Your task to perform on an android device: turn off javascript in the chrome app Image 0: 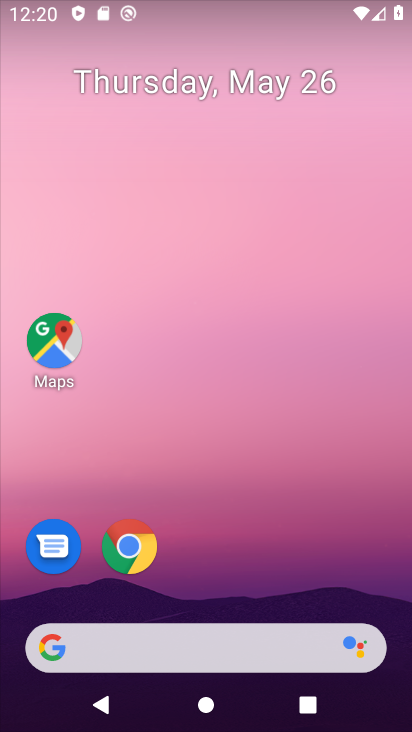
Step 0: drag from (390, 633) to (250, 30)
Your task to perform on an android device: turn off javascript in the chrome app Image 1: 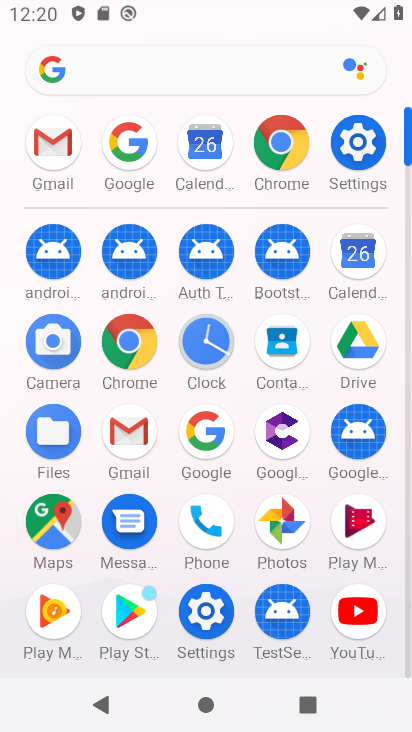
Step 1: click (138, 350)
Your task to perform on an android device: turn off javascript in the chrome app Image 2: 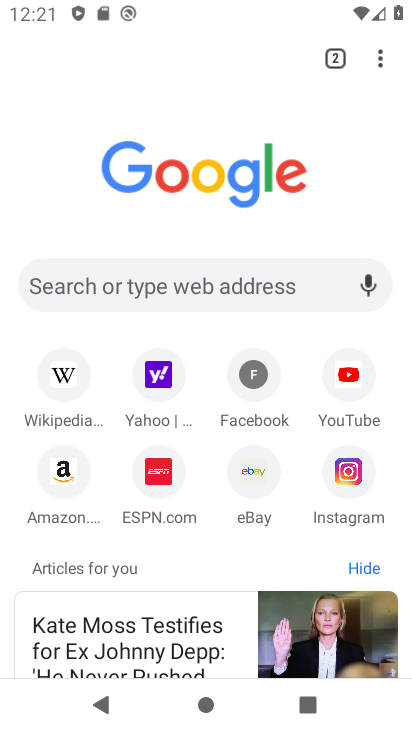
Step 2: click (389, 52)
Your task to perform on an android device: turn off javascript in the chrome app Image 3: 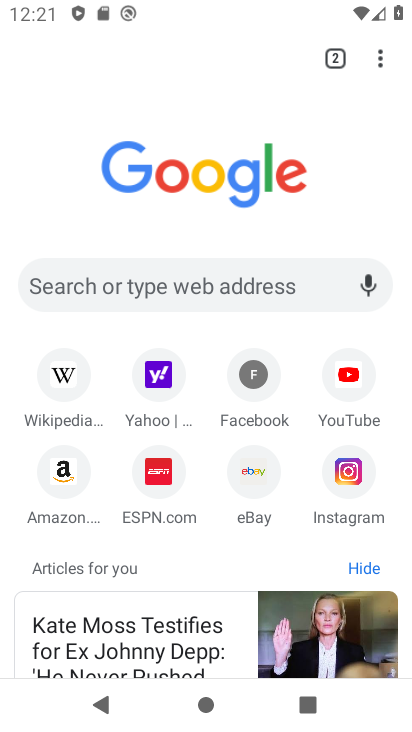
Step 3: click (381, 55)
Your task to perform on an android device: turn off javascript in the chrome app Image 4: 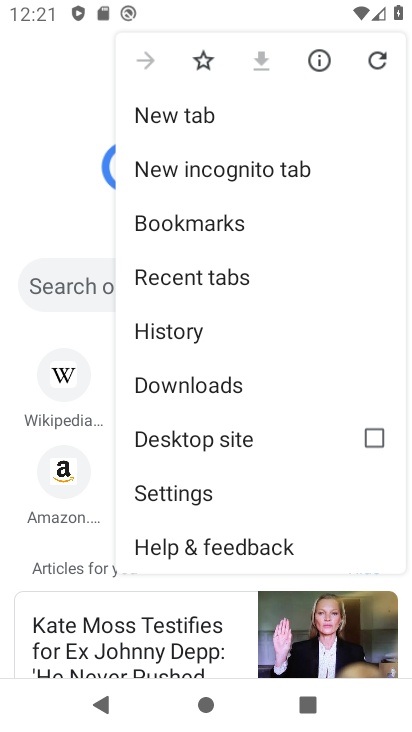
Step 4: click (204, 492)
Your task to perform on an android device: turn off javascript in the chrome app Image 5: 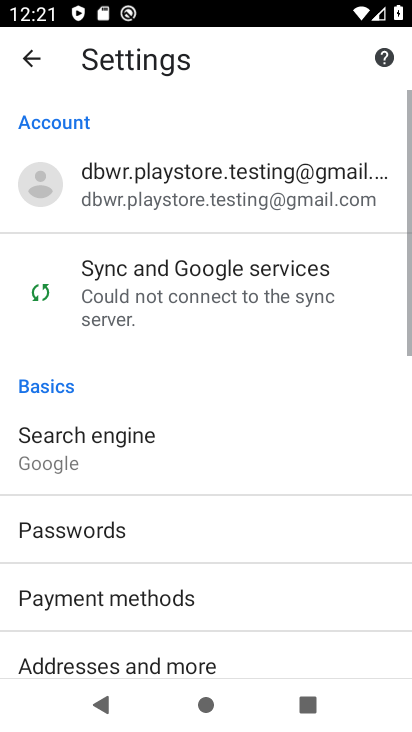
Step 5: drag from (120, 652) to (164, 257)
Your task to perform on an android device: turn off javascript in the chrome app Image 6: 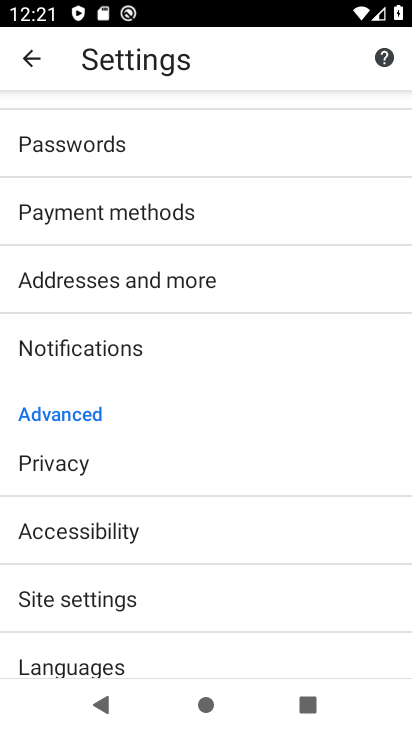
Step 6: click (124, 579)
Your task to perform on an android device: turn off javascript in the chrome app Image 7: 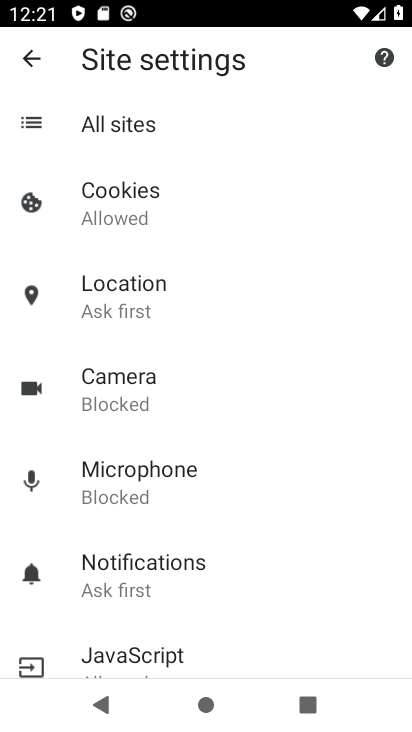
Step 7: click (185, 651)
Your task to perform on an android device: turn off javascript in the chrome app Image 8: 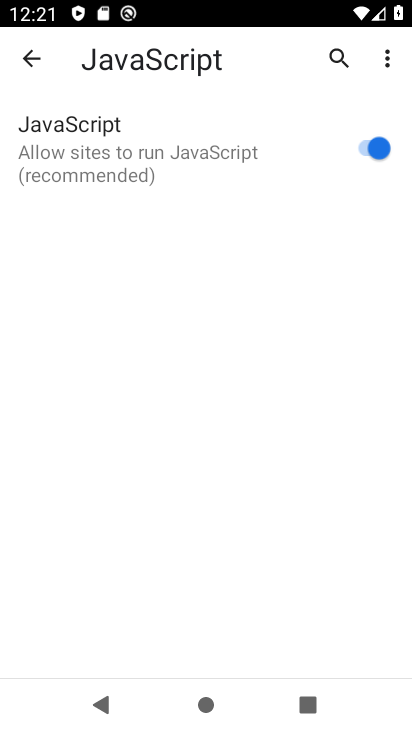
Step 8: click (324, 146)
Your task to perform on an android device: turn off javascript in the chrome app Image 9: 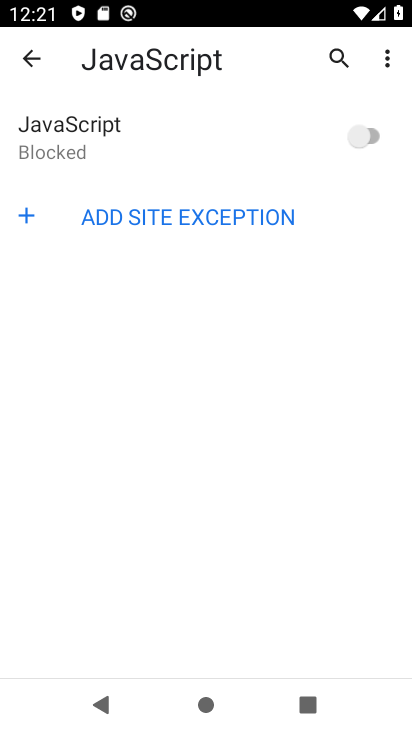
Step 9: task complete